Your task to perform on an android device: Open calendar and show me the second week of next month Image 0: 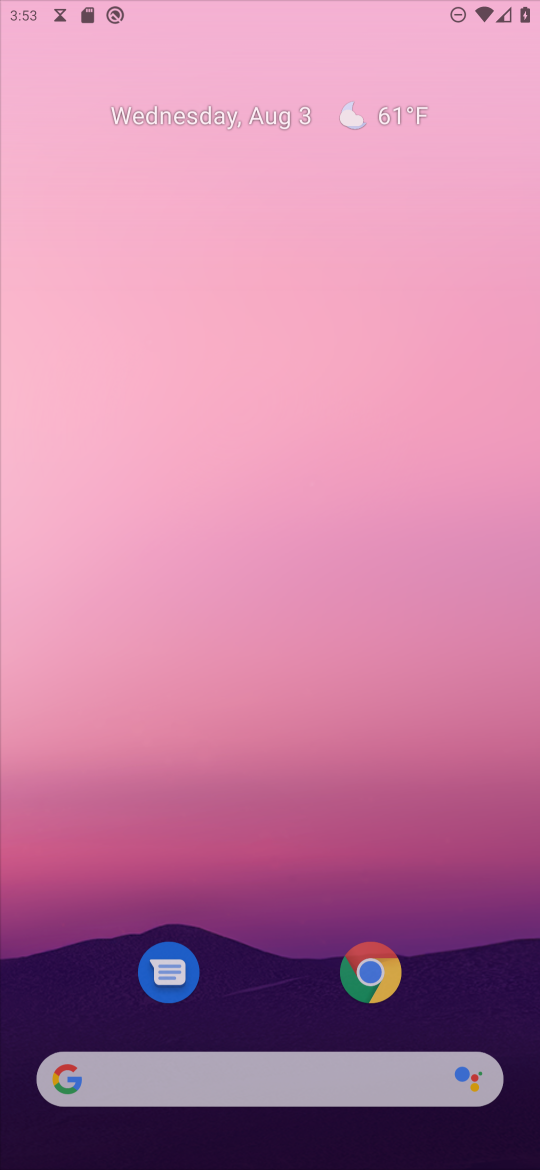
Step 0: press home button
Your task to perform on an android device: Open calendar and show me the second week of next month Image 1: 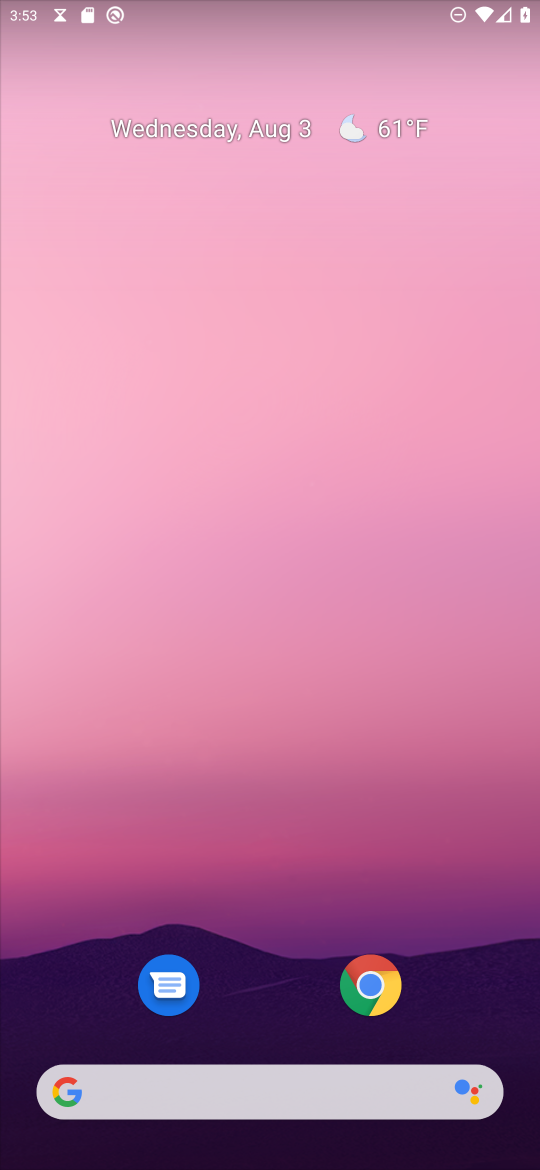
Step 1: drag from (296, 912) to (296, 456)
Your task to perform on an android device: Open calendar and show me the second week of next month Image 2: 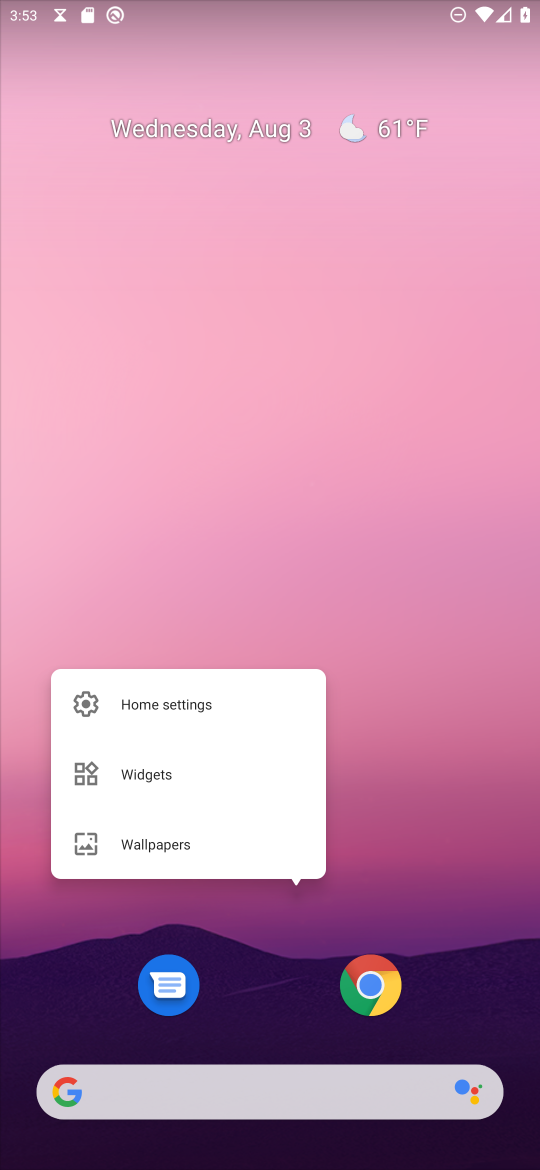
Step 2: click (395, 813)
Your task to perform on an android device: Open calendar and show me the second week of next month Image 3: 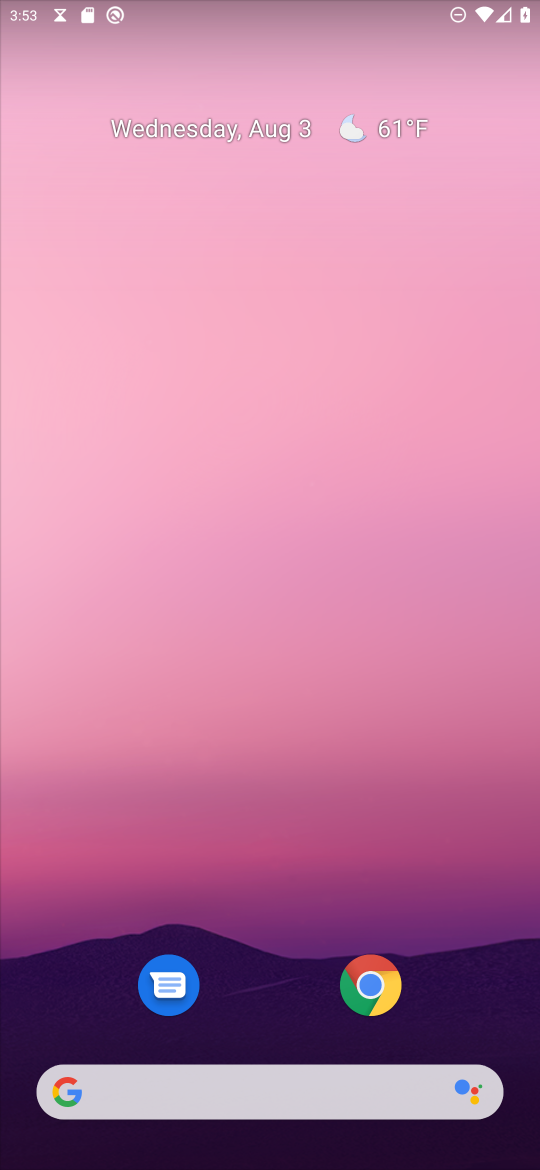
Step 3: drag from (260, 988) to (313, 2)
Your task to perform on an android device: Open calendar and show me the second week of next month Image 4: 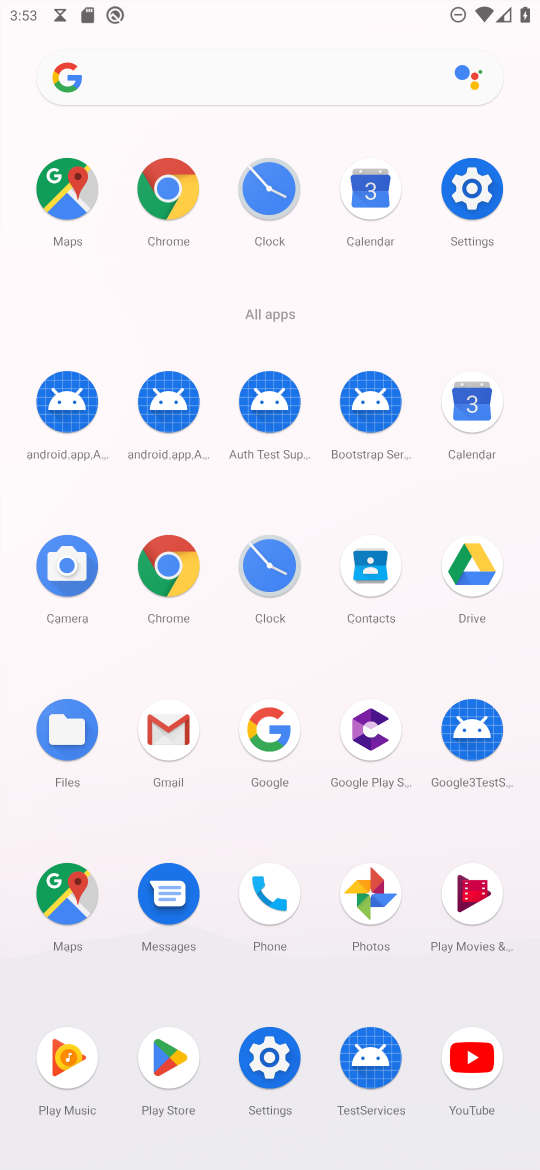
Step 4: click (475, 406)
Your task to perform on an android device: Open calendar and show me the second week of next month Image 5: 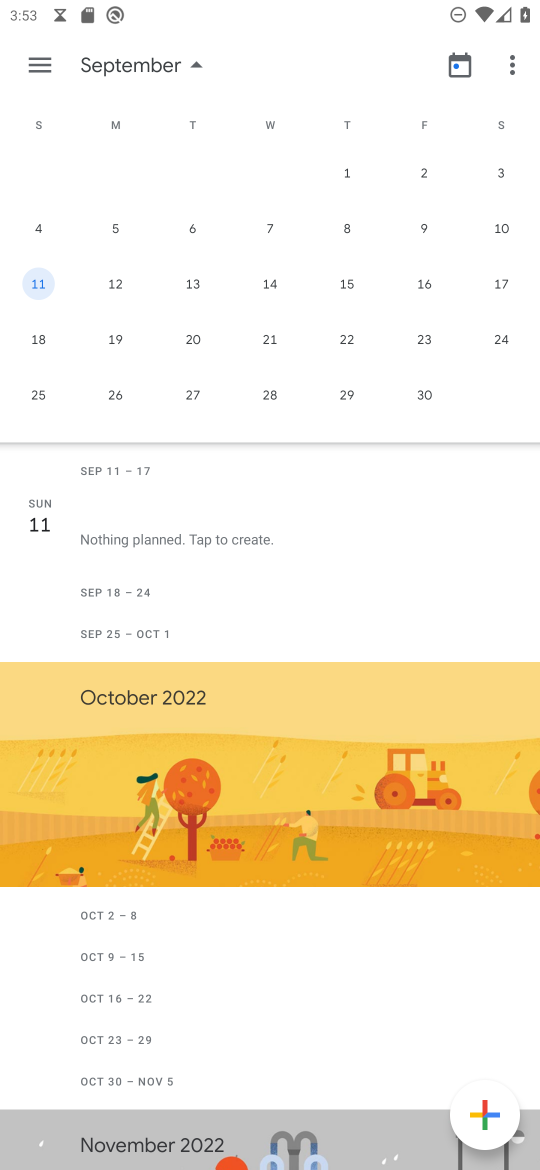
Step 5: click (50, 227)
Your task to perform on an android device: Open calendar and show me the second week of next month Image 6: 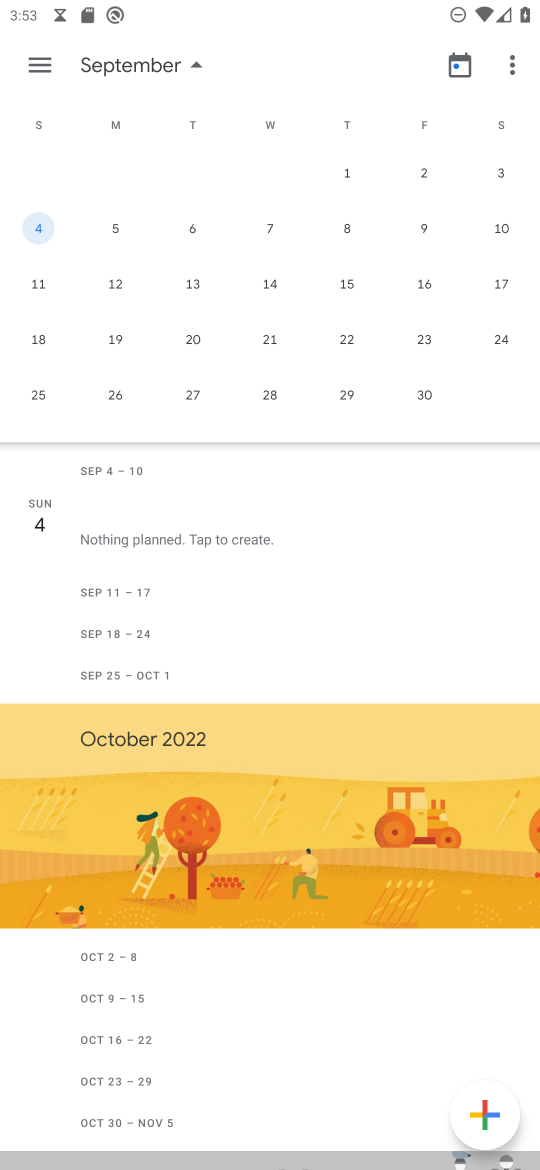
Step 6: task complete